Your task to perform on an android device: turn smart compose on in the gmail app Image 0: 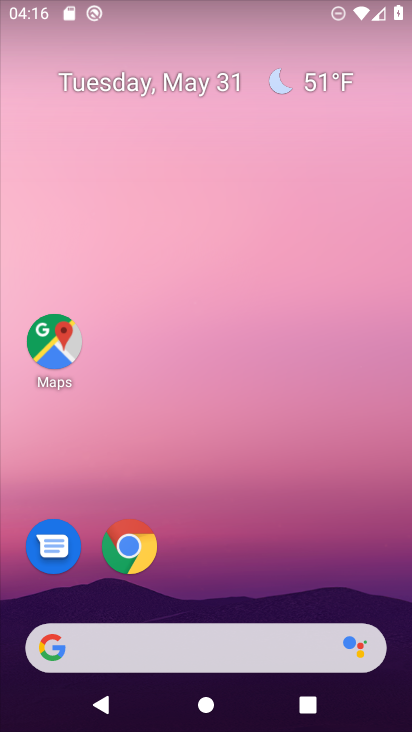
Step 0: drag from (208, 534) to (215, 89)
Your task to perform on an android device: turn smart compose on in the gmail app Image 1: 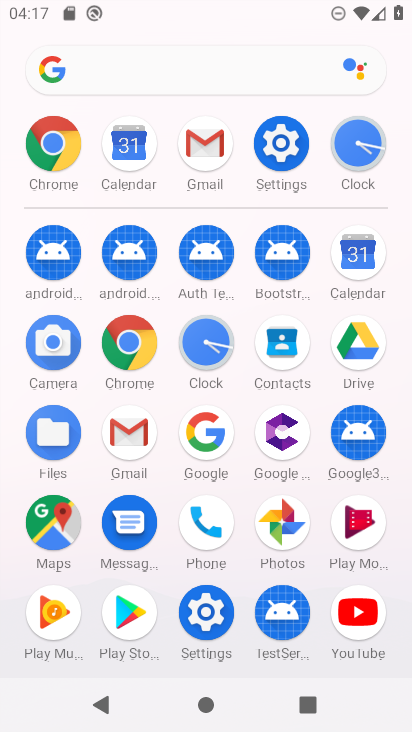
Step 1: click (207, 176)
Your task to perform on an android device: turn smart compose on in the gmail app Image 2: 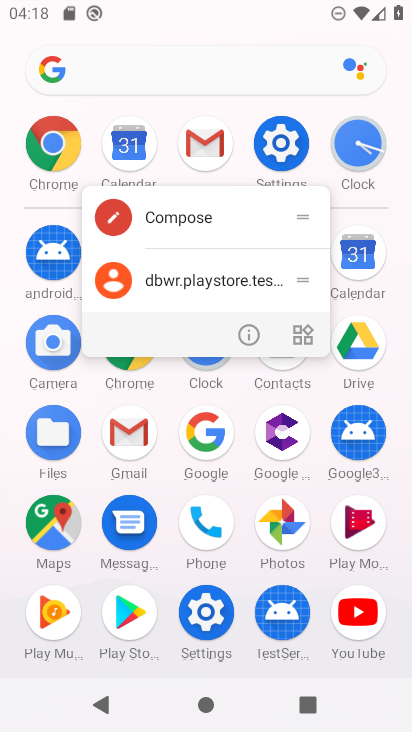
Step 2: click (141, 434)
Your task to perform on an android device: turn smart compose on in the gmail app Image 3: 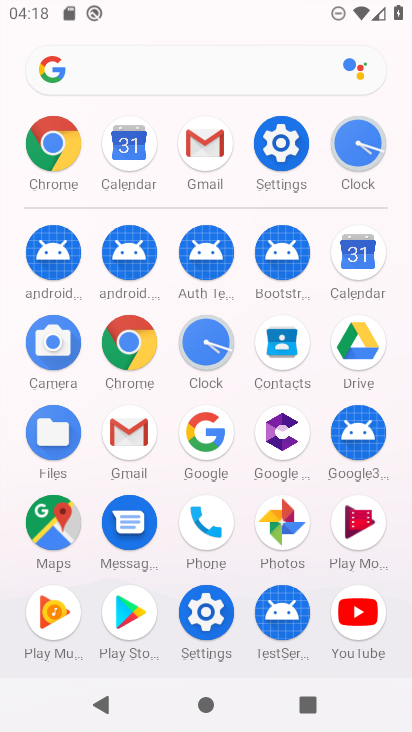
Step 3: click (119, 452)
Your task to perform on an android device: turn smart compose on in the gmail app Image 4: 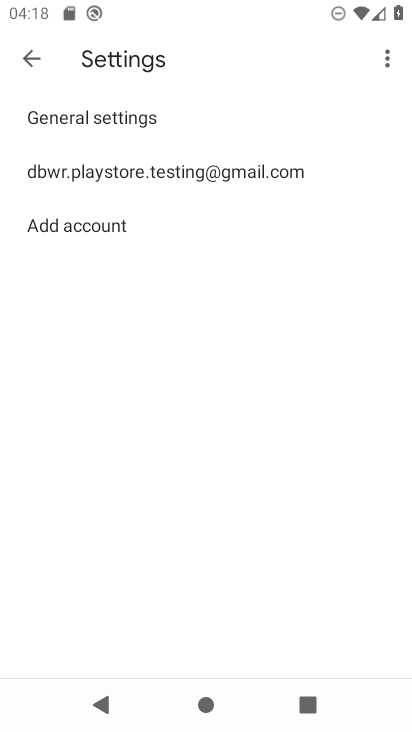
Step 4: click (177, 185)
Your task to perform on an android device: turn smart compose on in the gmail app Image 5: 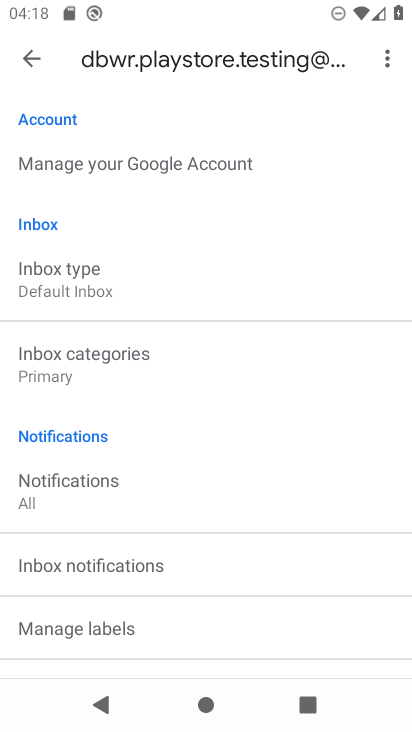
Step 5: task complete